Your task to perform on an android device: Open maps Image 0: 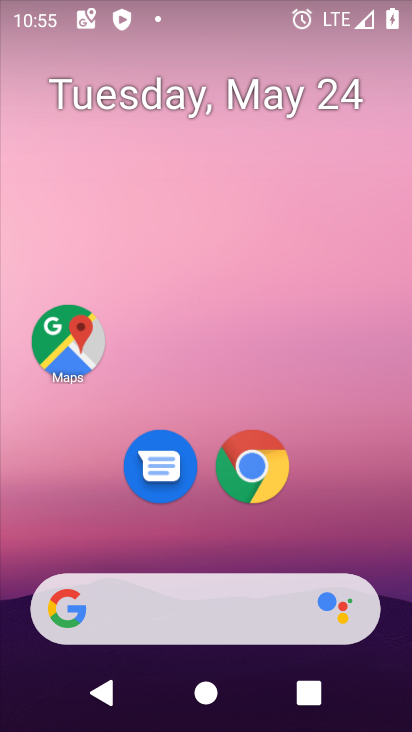
Step 0: drag from (378, 555) to (337, 226)
Your task to perform on an android device: Open maps Image 1: 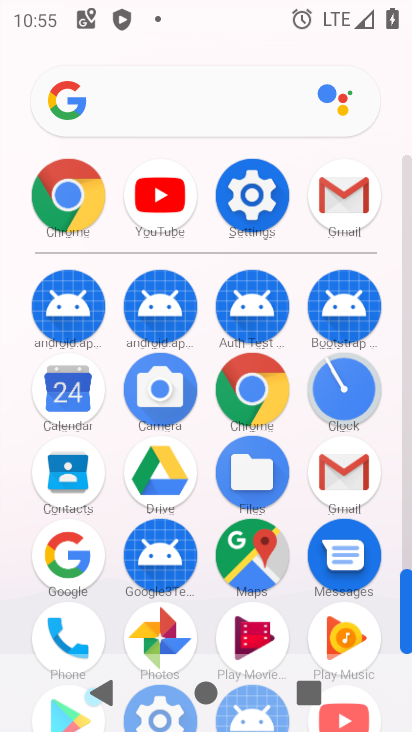
Step 1: click (255, 570)
Your task to perform on an android device: Open maps Image 2: 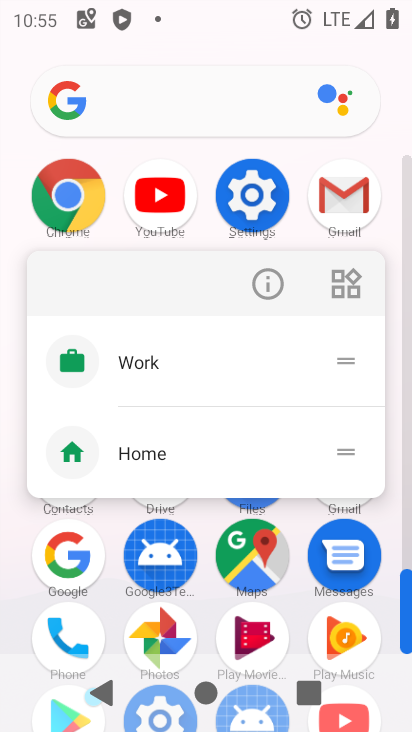
Step 2: click (255, 570)
Your task to perform on an android device: Open maps Image 3: 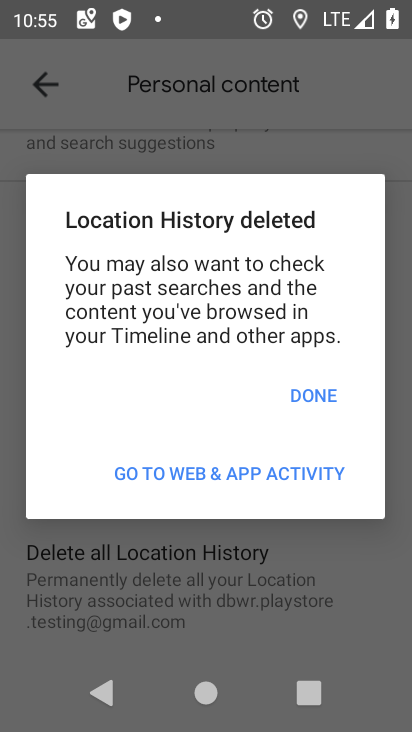
Step 3: task complete